Your task to perform on an android device: When is my next meeting? Image 0: 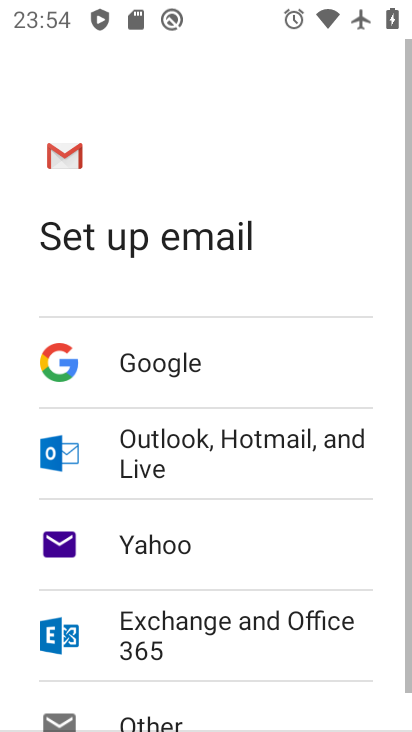
Step 0: press home button
Your task to perform on an android device: When is my next meeting? Image 1: 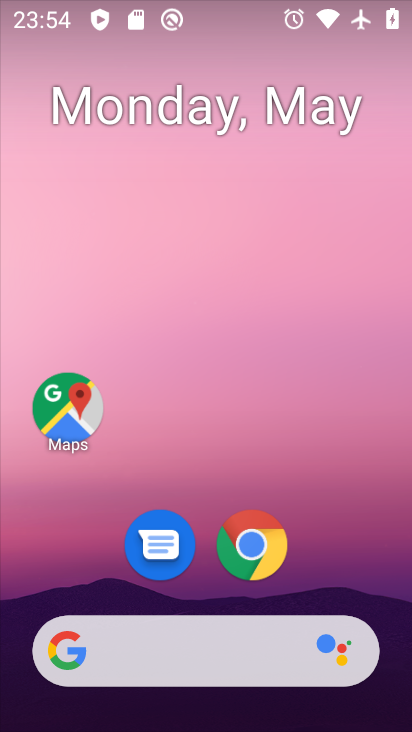
Step 1: drag from (331, 583) to (333, 4)
Your task to perform on an android device: When is my next meeting? Image 2: 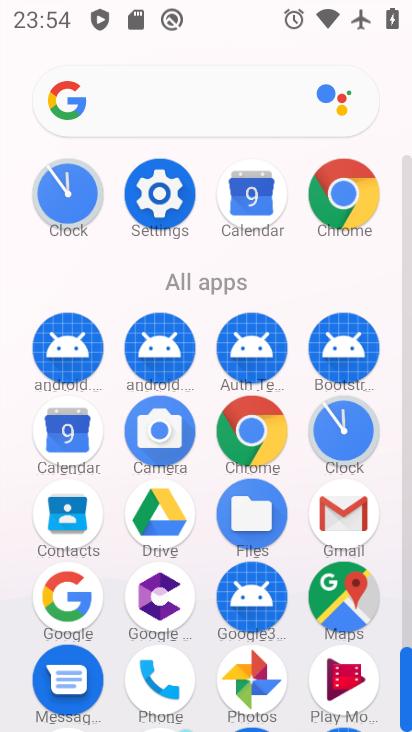
Step 2: click (270, 192)
Your task to perform on an android device: When is my next meeting? Image 3: 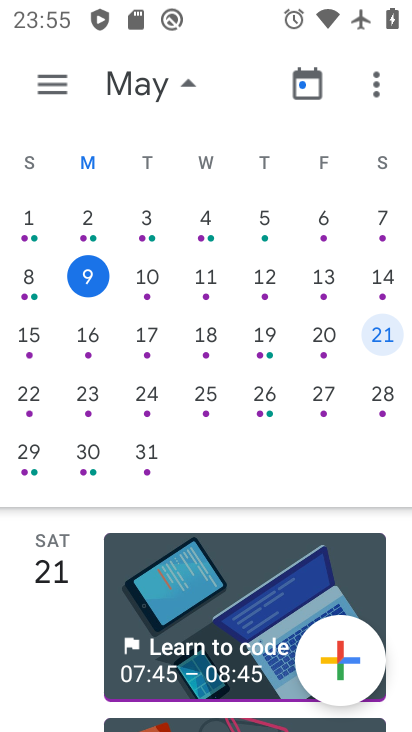
Step 3: click (71, 278)
Your task to perform on an android device: When is my next meeting? Image 4: 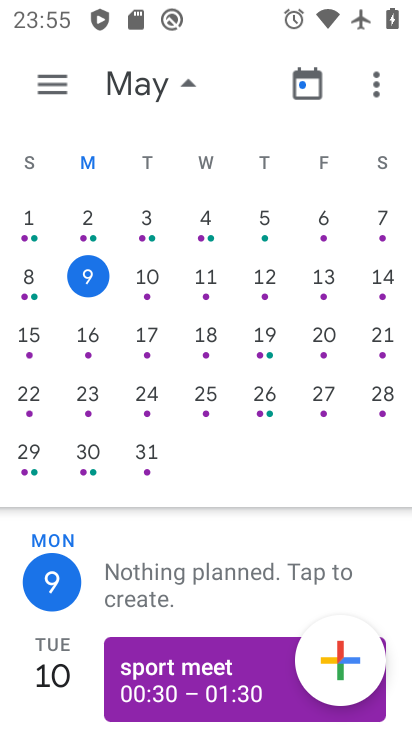
Step 4: task complete